Your task to perform on an android device: What's the weather today? Image 0: 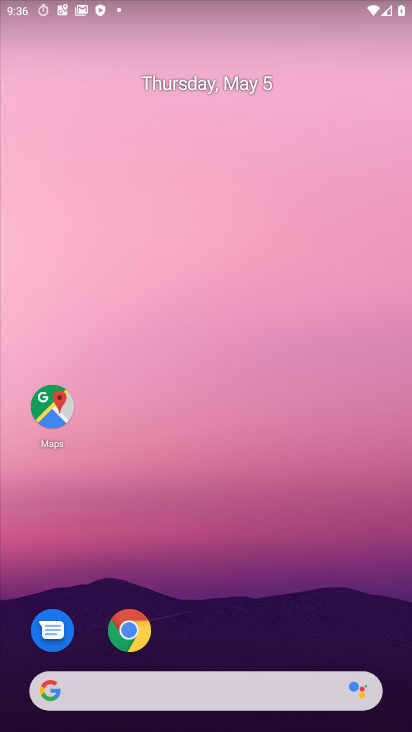
Step 0: click (133, 625)
Your task to perform on an android device: What's the weather today? Image 1: 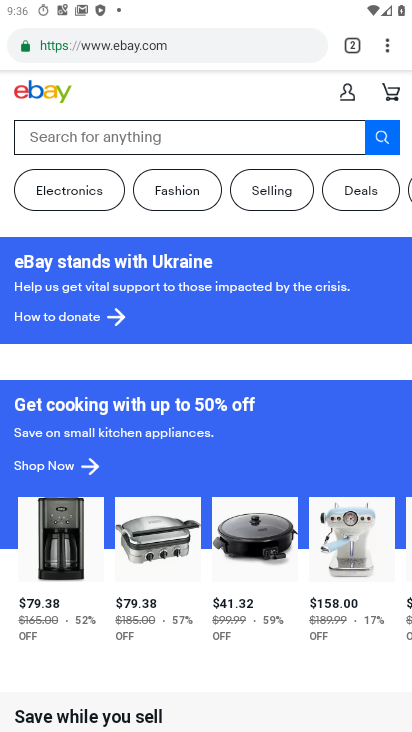
Step 1: click (355, 44)
Your task to perform on an android device: What's the weather today? Image 2: 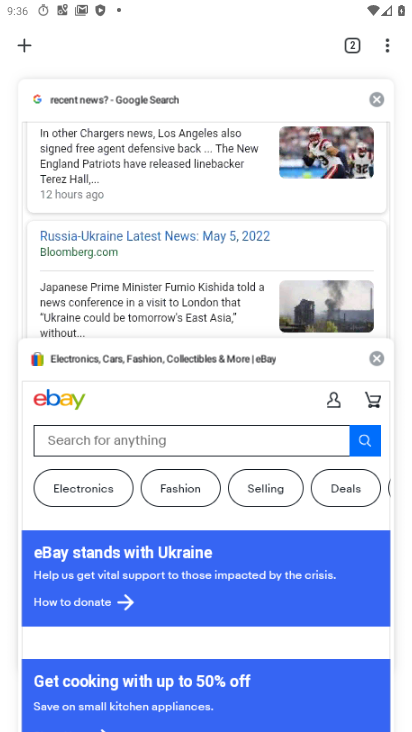
Step 2: click (29, 37)
Your task to perform on an android device: What's the weather today? Image 3: 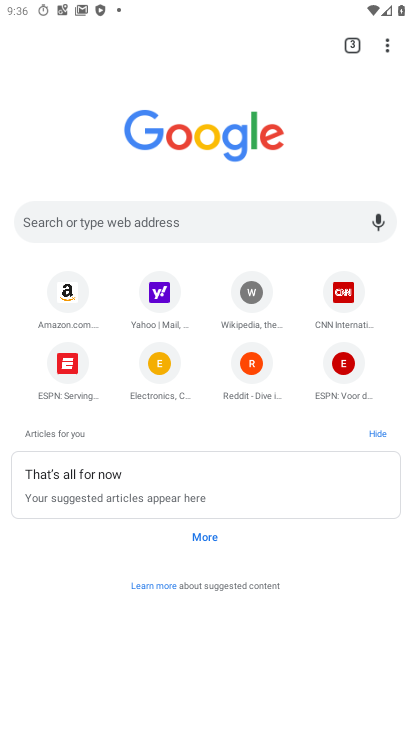
Step 3: click (132, 222)
Your task to perform on an android device: What's the weather today? Image 4: 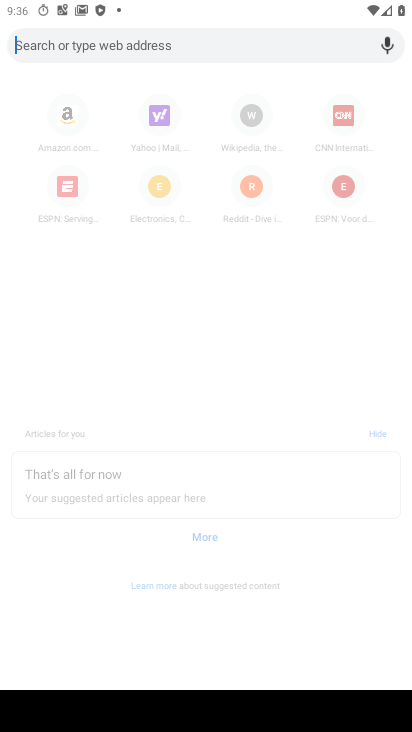
Step 4: type "what's the weather today"
Your task to perform on an android device: What's the weather today? Image 5: 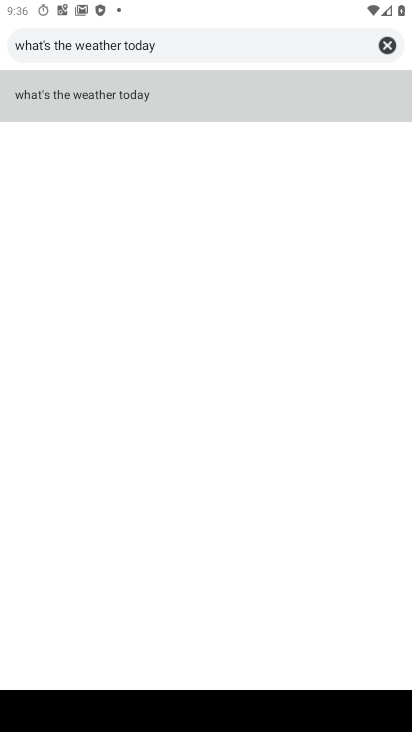
Step 5: click (128, 101)
Your task to perform on an android device: What's the weather today? Image 6: 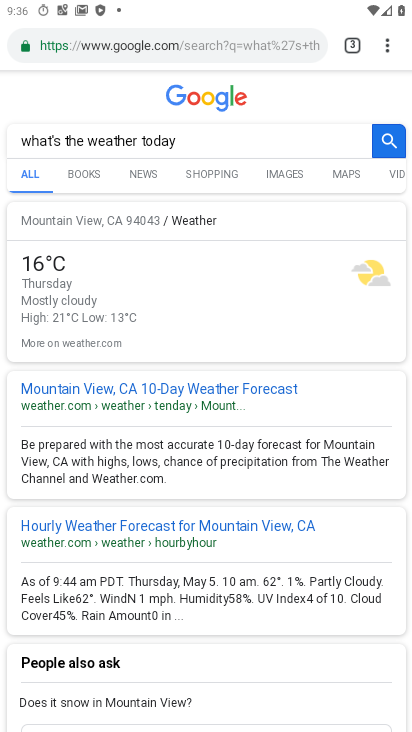
Step 6: task complete